Your task to perform on an android device: Go to network settings Image 0: 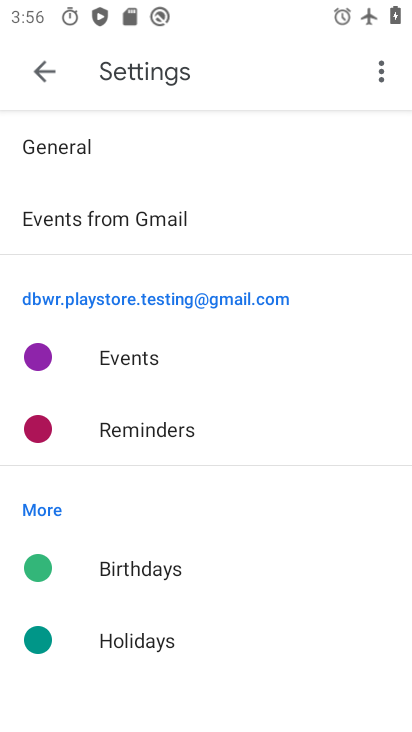
Step 0: press home button
Your task to perform on an android device: Go to network settings Image 1: 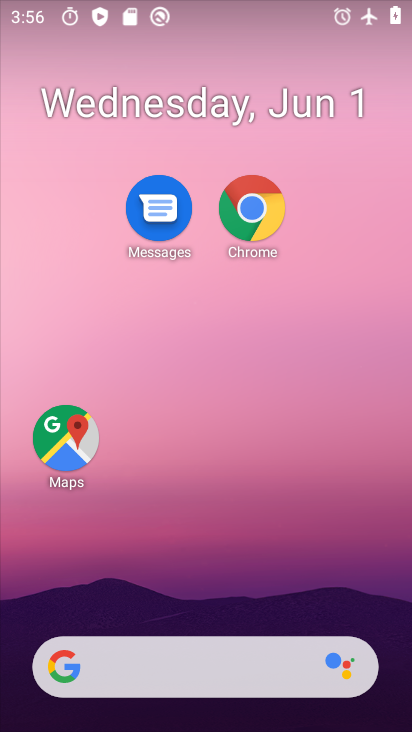
Step 1: drag from (179, 617) to (194, 272)
Your task to perform on an android device: Go to network settings Image 2: 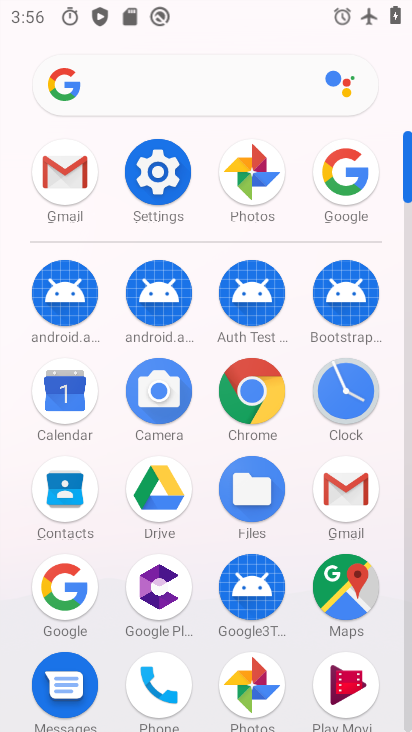
Step 2: click (174, 182)
Your task to perform on an android device: Go to network settings Image 3: 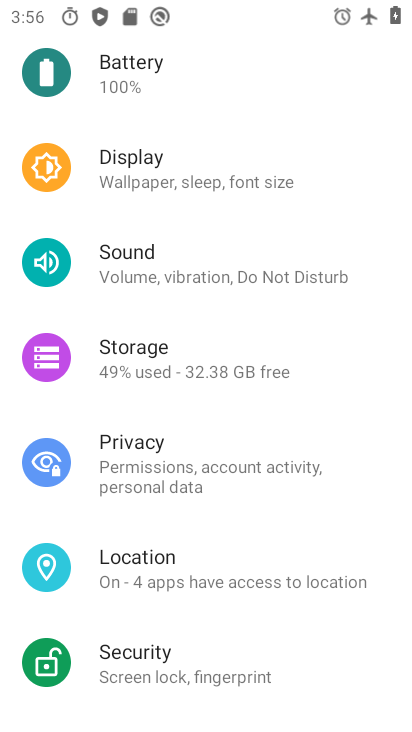
Step 3: drag from (181, 118) to (243, 538)
Your task to perform on an android device: Go to network settings Image 4: 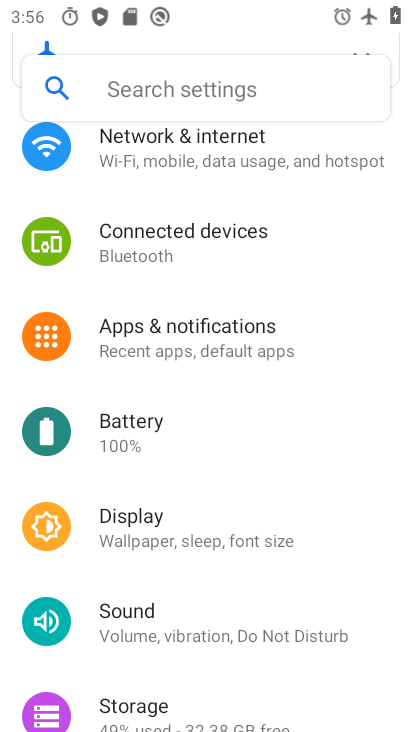
Step 4: click (172, 173)
Your task to perform on an android device: Go to network settings Image 5: 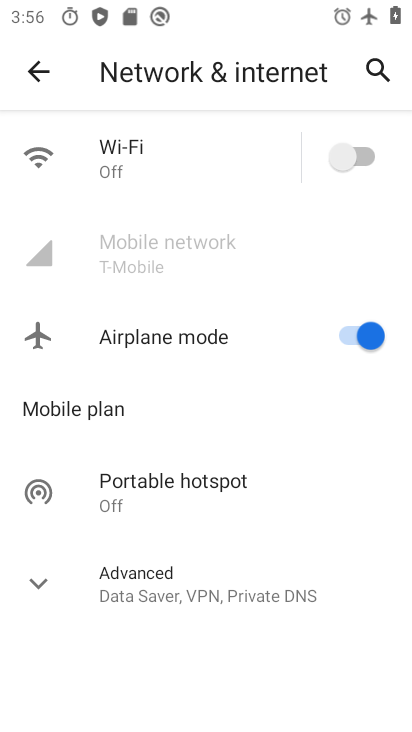
Step 5: task complete